Your task to perform on an android device: turn off notifications in google photos Image 0: 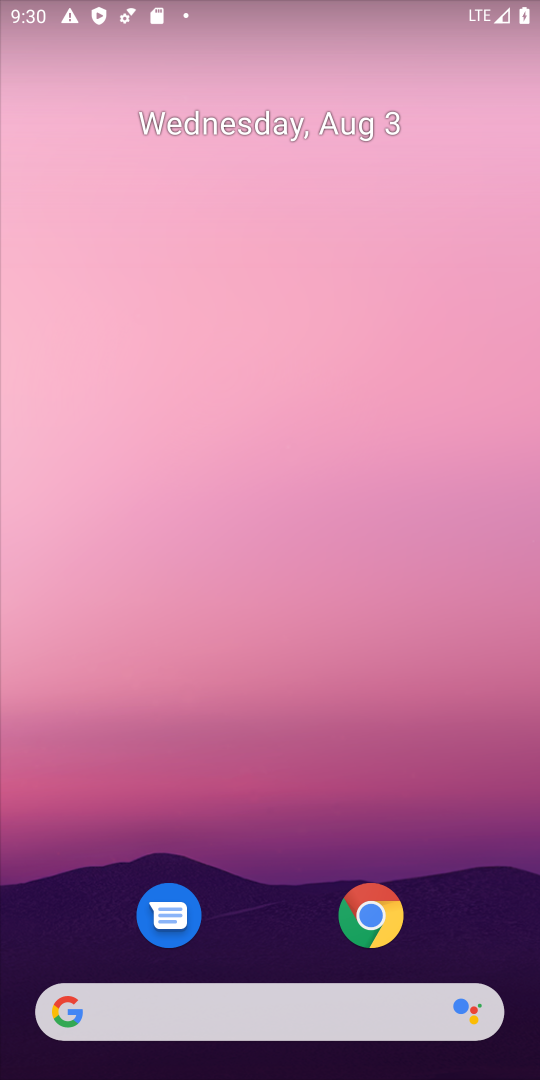
Step 0: drag from (256, 919) to (303, 465)
Your task to perform on an android device: turn off notifications in google photos Image 1: 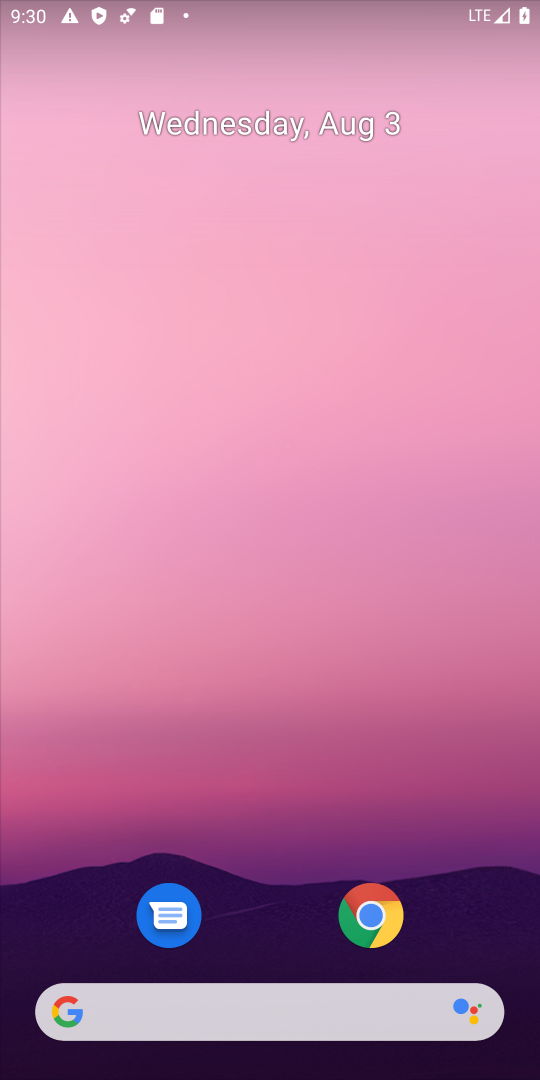
Step 1: drag from (334, 940) to (334, 381)
Your task to perform on an android device: turn off notifications in google photos Image 2: 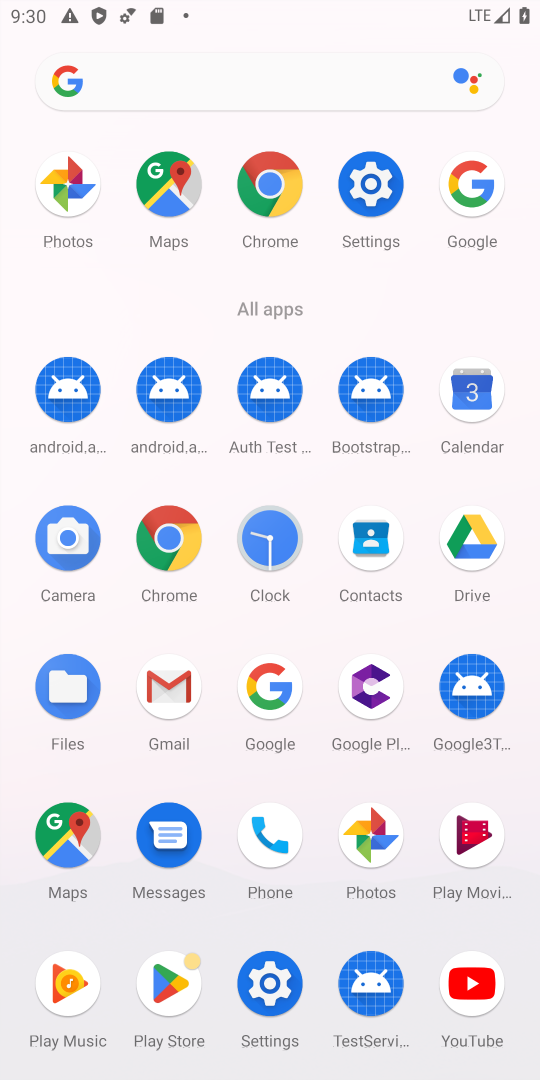
Step 2: click (368, 842)
Your task to perform on an android device: turn off notifications in google photos Image 3: 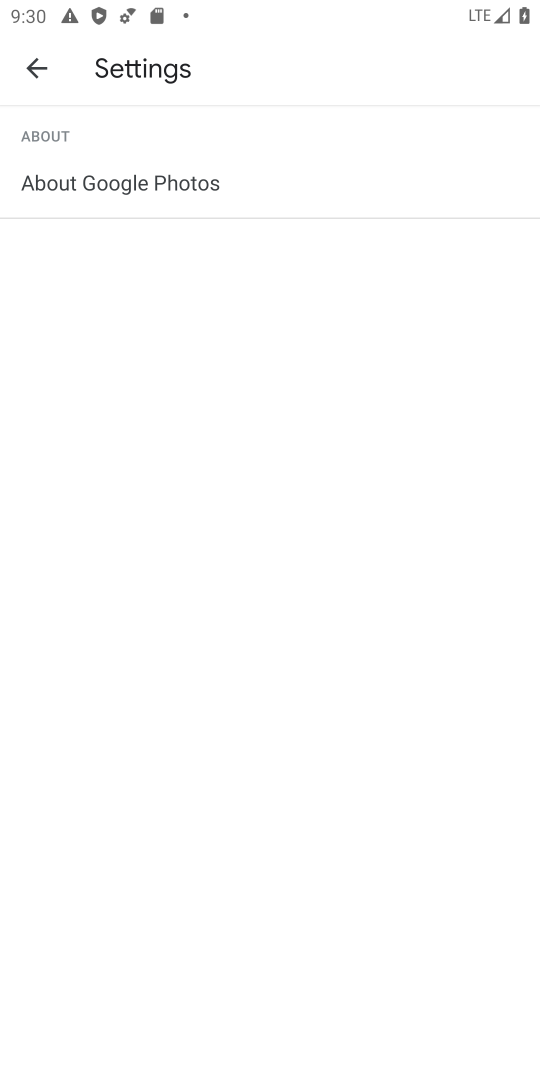
Step 3: click (44, 55)
Your task to perform on an android device: turn off notifications in google photos Image 4: 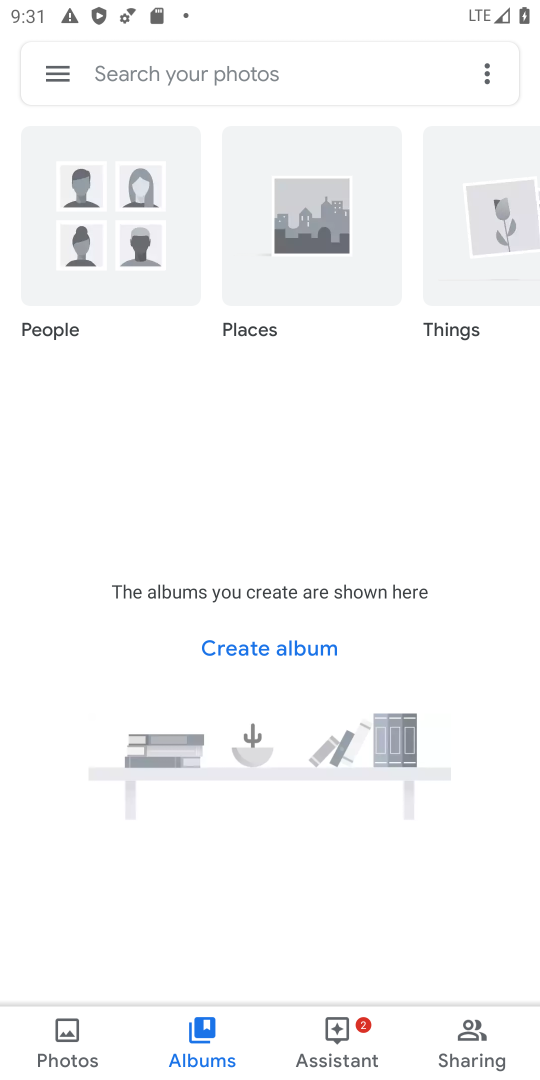
Step 4: press back button
Your task to perform on an android device: turn off notifications in google photos Image 5: 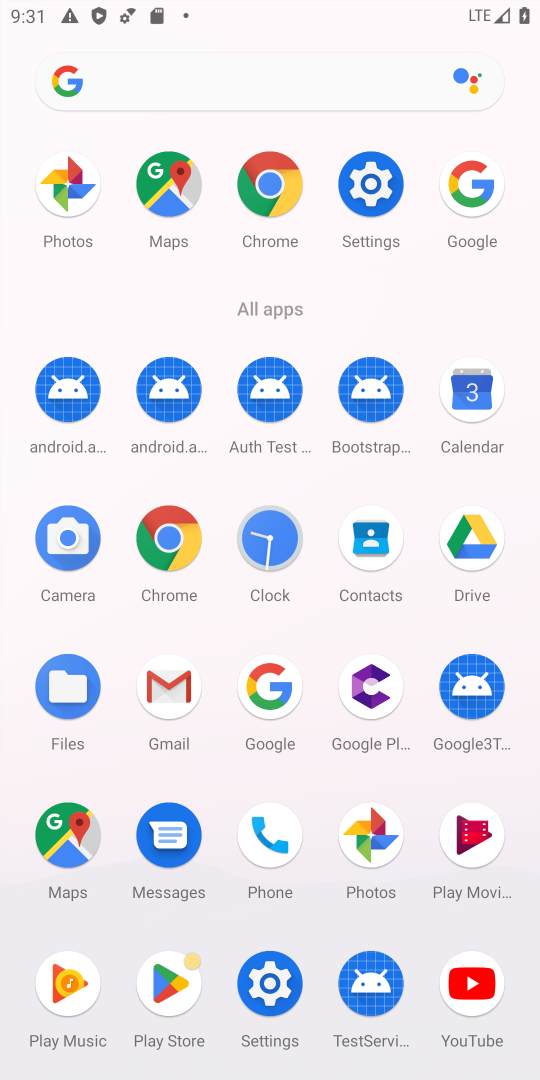
Step 5: click (56, 195)
Your task to perform on an android device: turn off notifications in google photos Image 6: 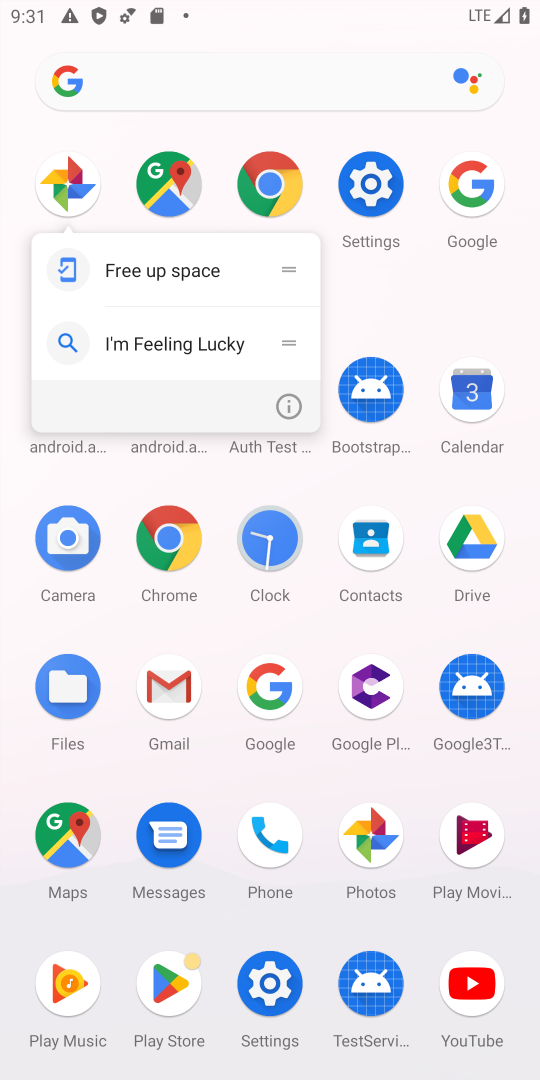
Step 6: click (55, 182)
Your task to perform on an android device: turn off notifications in google photos Image 7: 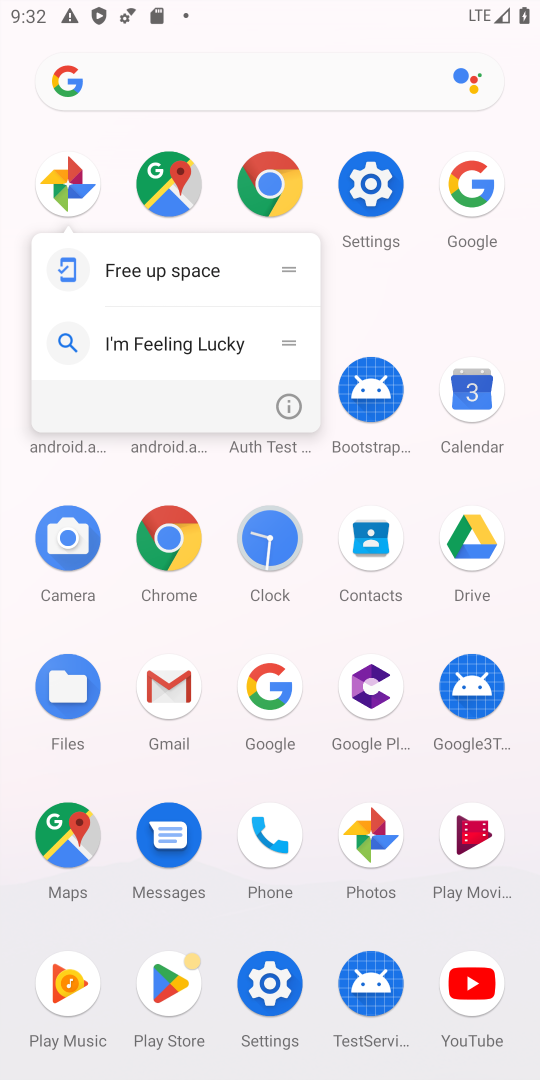
Step 7: click (59, 187)
Your task to perform on an android device: turn off notifications in google photos Image 8: 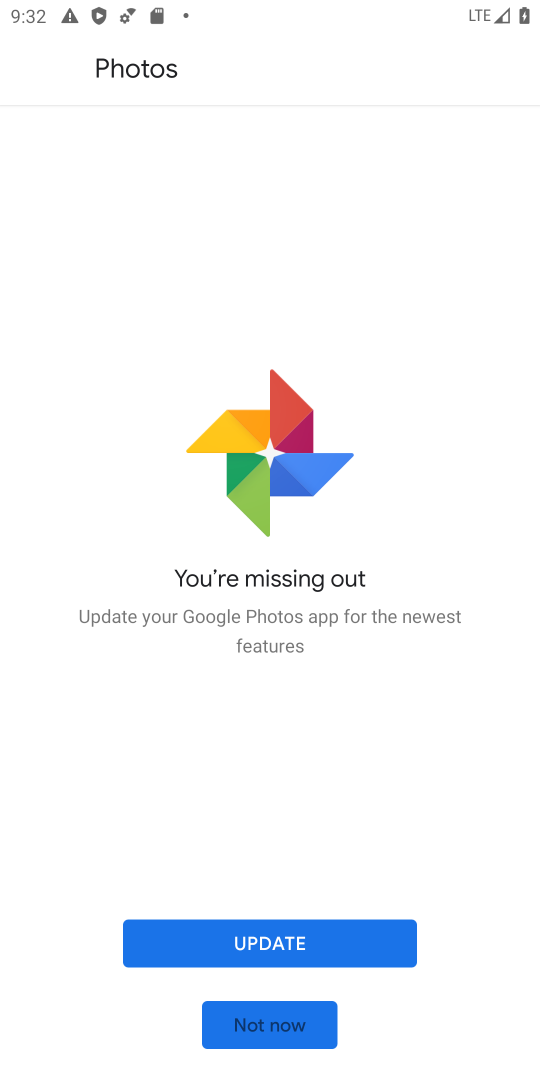
Step 8: click (280, 1013)
Your task to perform on an android device: turn off notifications in google photos Image 9: 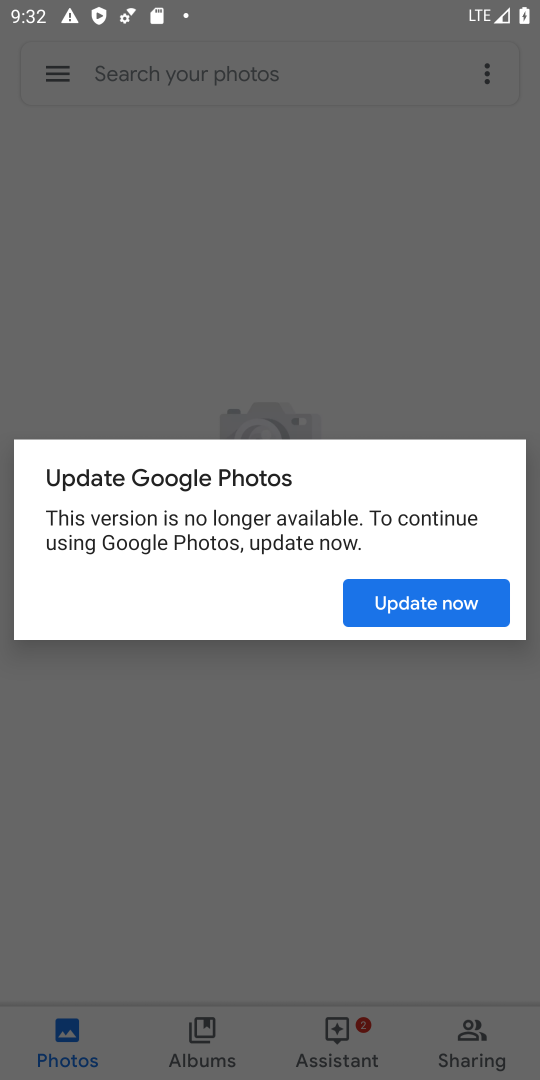
Step 9: click (389, 592)
Your task to perform on an android device: turn off notifications in google photos Image 10: 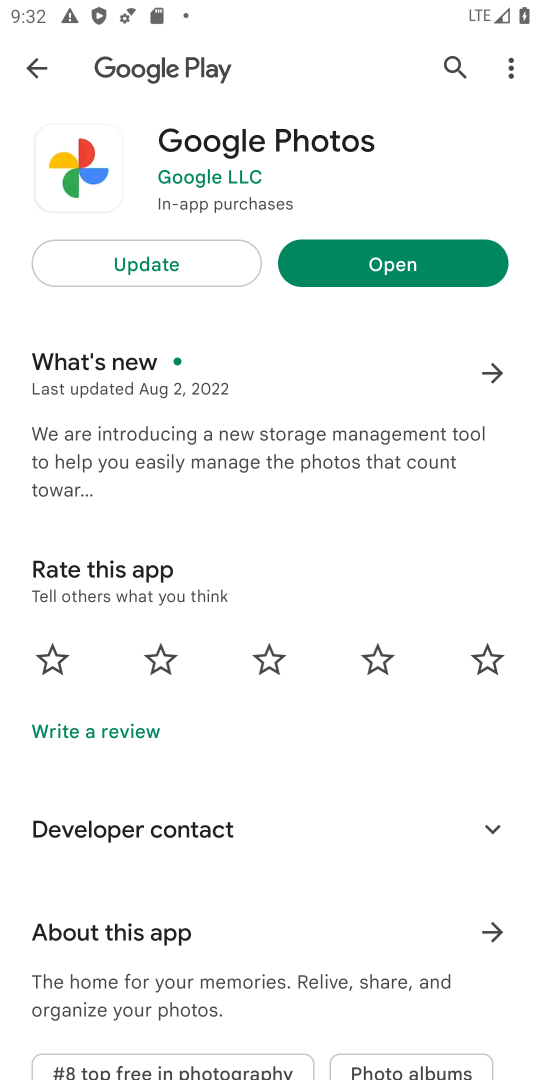
Step 10: click (351, 259)
Your task to perform on an android device: turn off notifications in google photos Image 11: 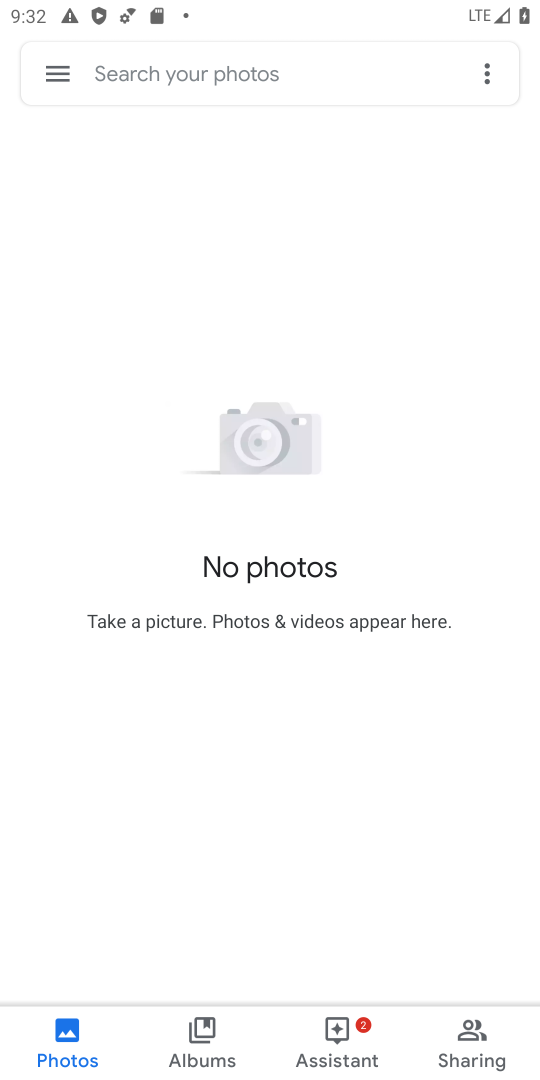
Step 11: click (53, 69)
Your task to perform on an android device: turn off notifications in google photos Image 12: 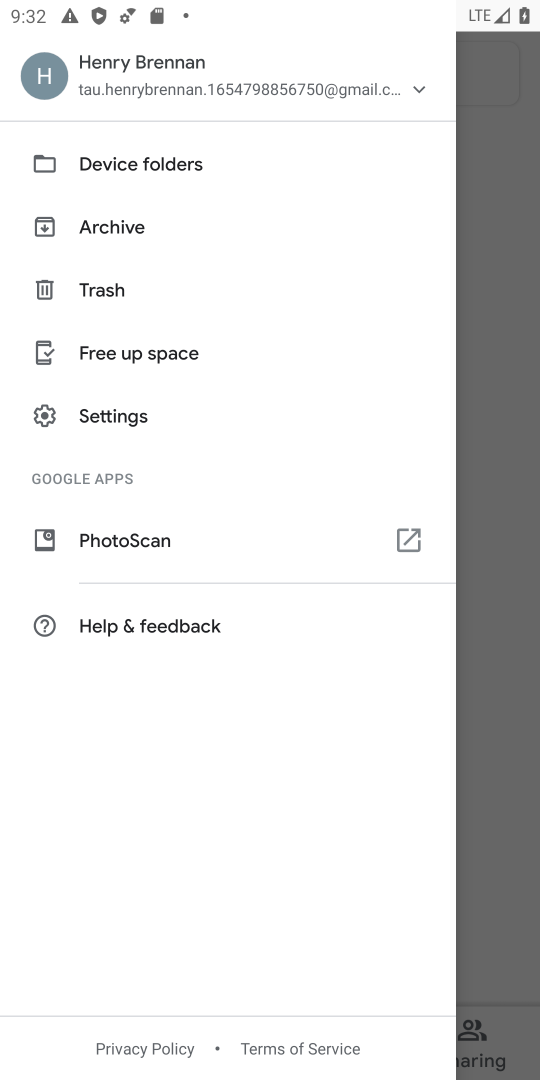
Step 12: click (86, 417)
Your task to perform on an android device: turn off notifications in google photos Image 13: 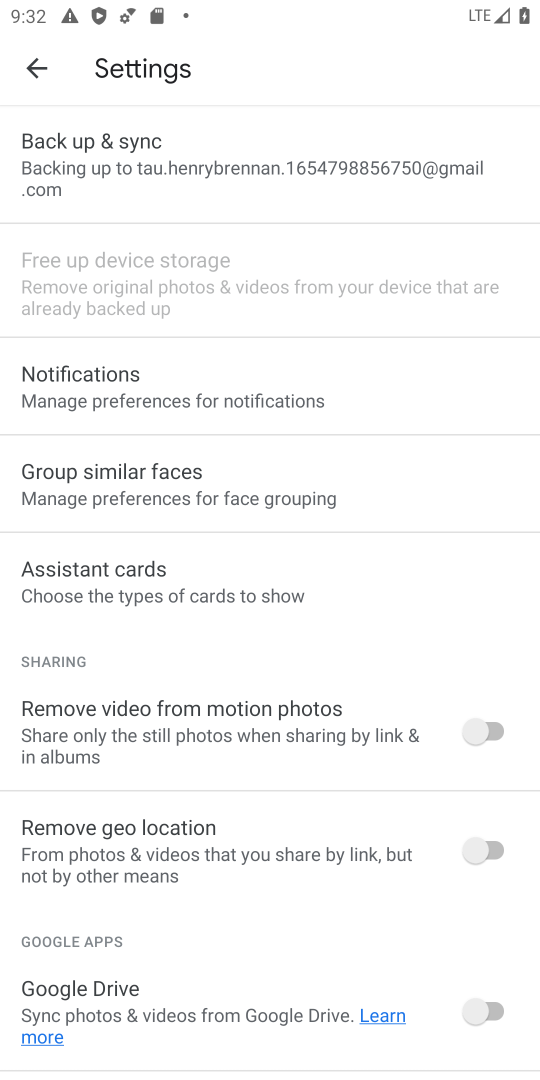
Step 13: click (127, 384)
Your task to perform on an android device: turn off notifications in google photos Image 14: 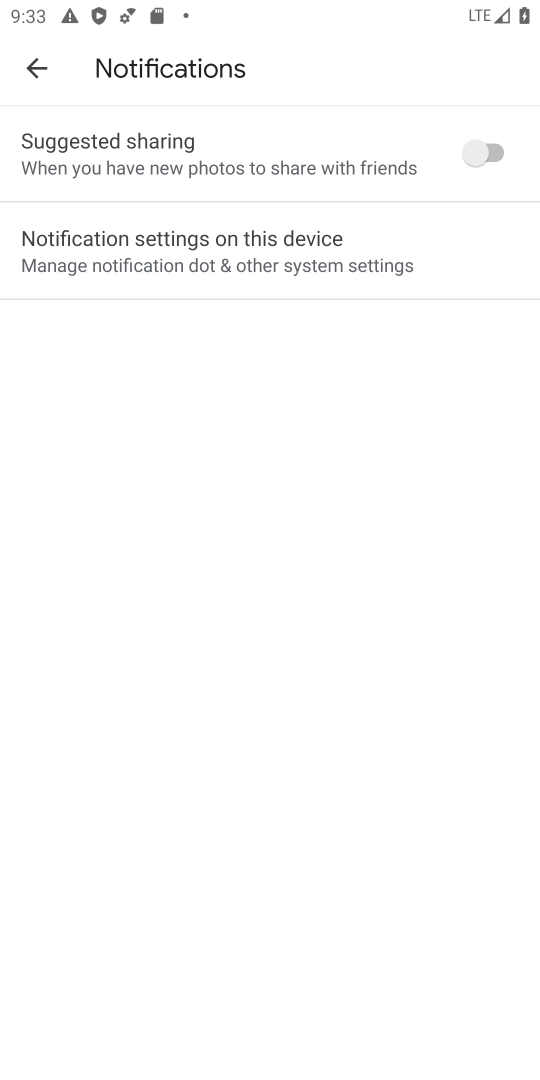
Step 14: click (111, 235)
Your task to perform on an android device: turn off notifications in google photos Image 15: 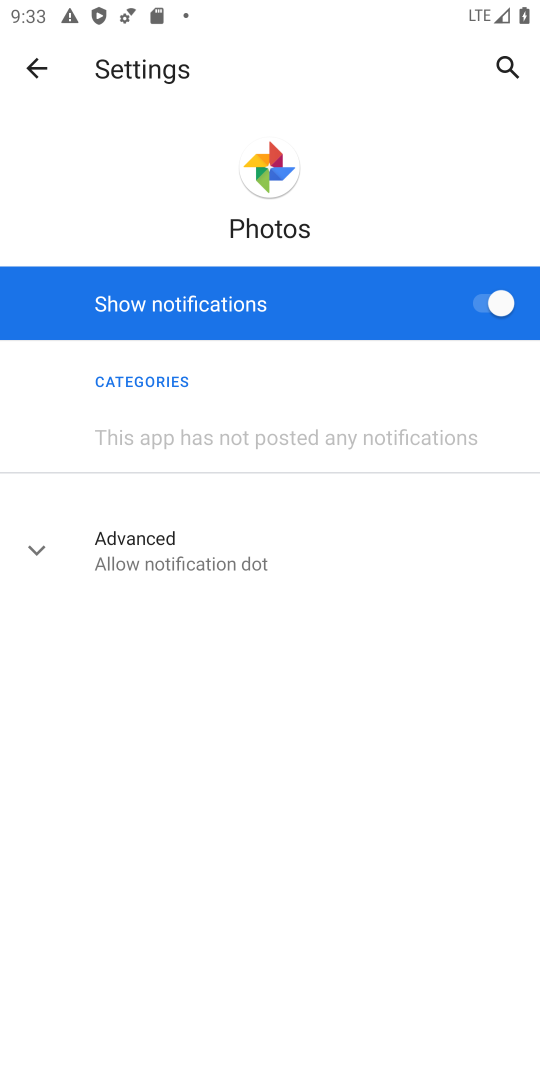
Step 15: click (492, 294)
Your task to perform on an android device: turn off notifications in google photos Image 16: 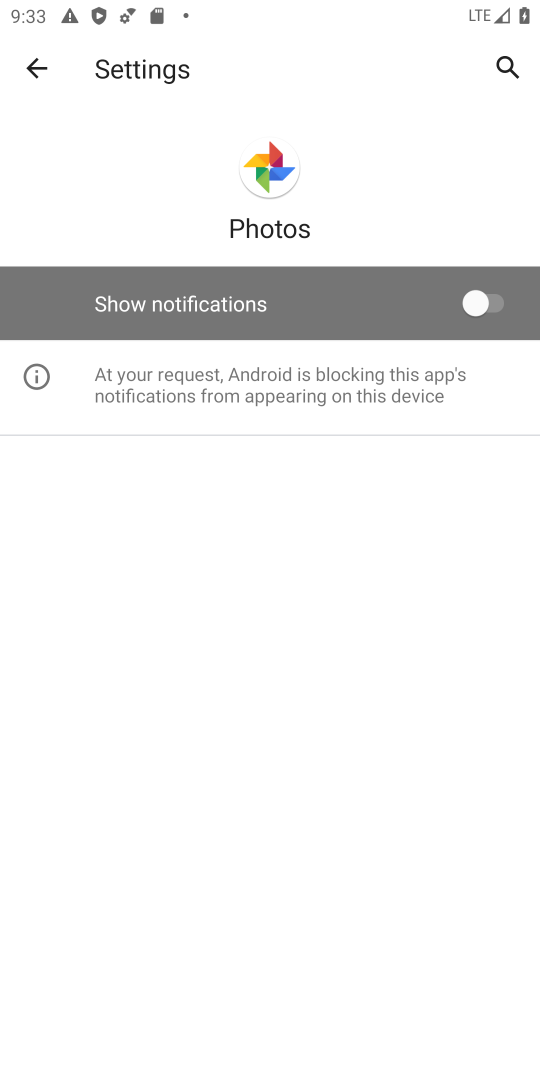
Step 16: task complete